Your task to perform on an android device: What is the recent news? Image 0: 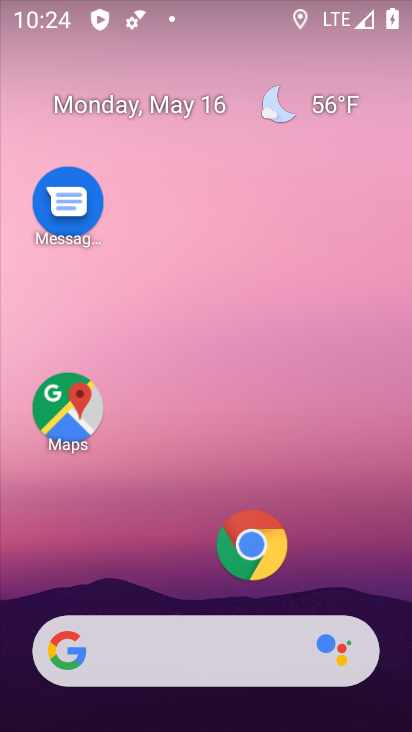
Step 0: click (245, 647)
Your task to perform on an android device: What is the recent news? Image 1: 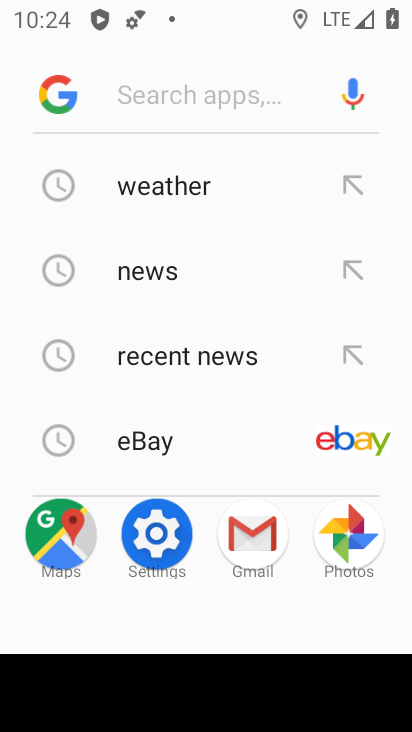
Step 1: click (124, 270)
Your task to perform on an android device: What is the recent news? Image 2: 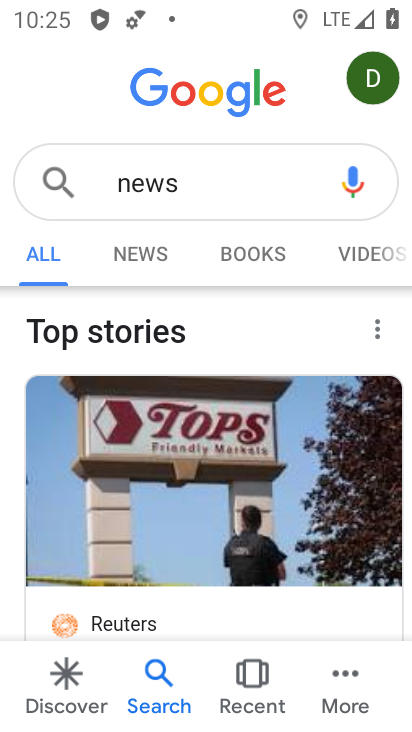
Step 2: click (158, 268)
Your task to perform on an android device: What is the recent news? Image 3: 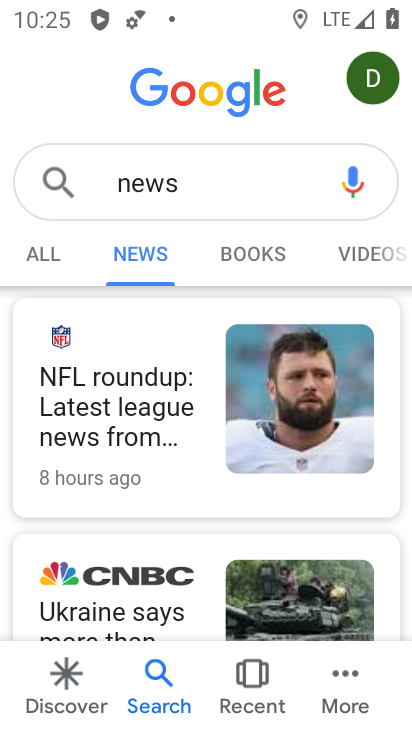
Step 3: task complete